Your task to perform on an android device: Search for Mexican restaurants on Maps Image 0: 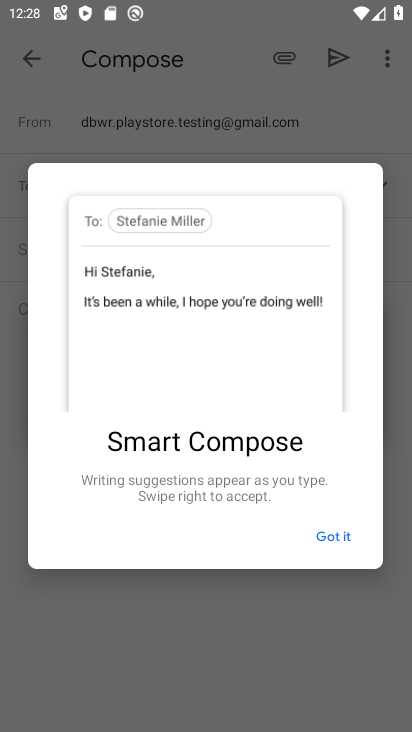
Step 0: press home button
Your task to perform on an android device: Search for Mexican restaurants on Maps Image 1: 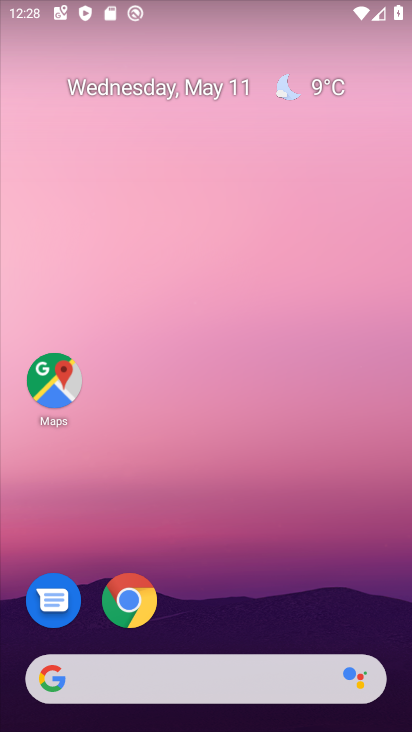
Step 1: click (65, 381)
Your task to perform on an android device: Search for Mexican restaurants on Maps Image 2: 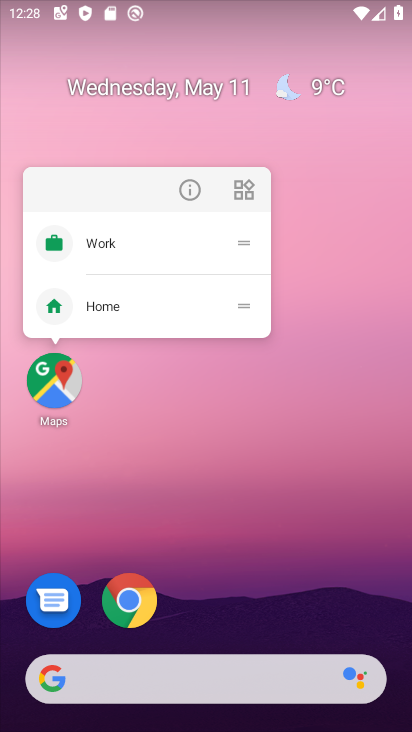
Step 2: click (62, 388)
Your task to perform on an android device: Search for Mexican restaurants on Maps Image 3: 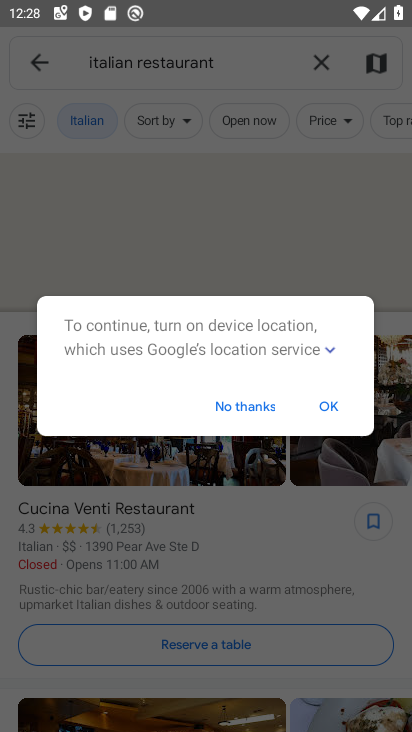
Step 3: click (329, 57)
Your task to perform on an android device: Search for Mexican restaurants on Maps Image 4: 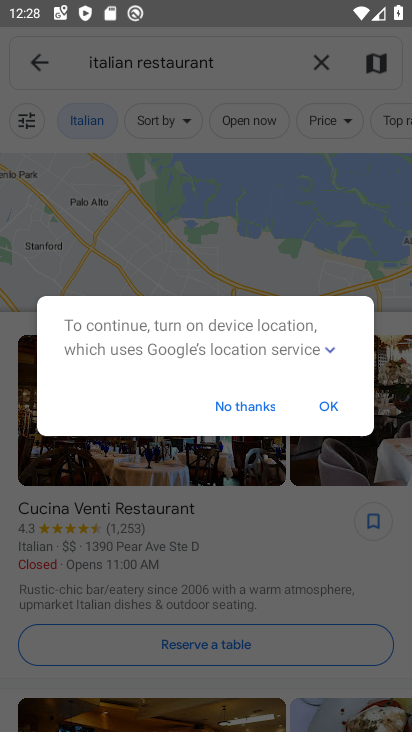
Step 4: click (323, 394)
Your task to perform on an android device: Search for Mexican restaurants on Maps Image 5: 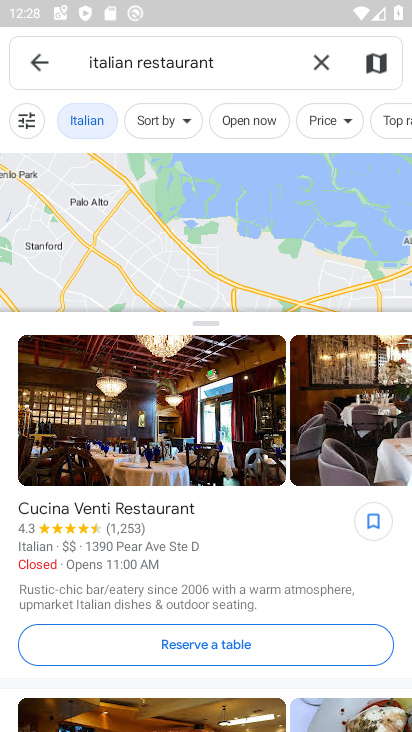
Step 5: click (325, 68)
Your task to perform on an android device: Search for Mexican restaurants on Maps Image 6: 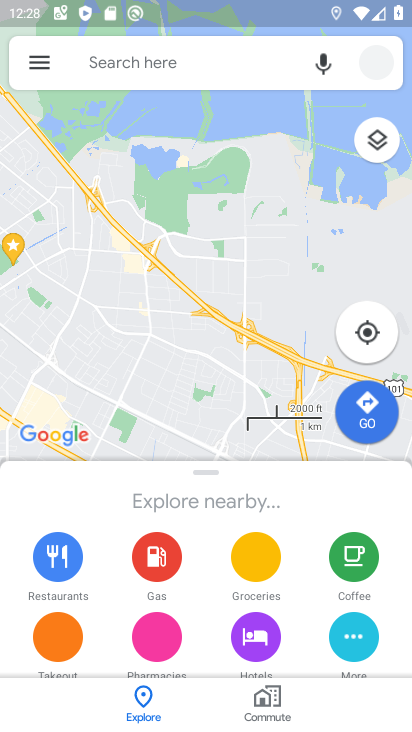
Step 6: click (169, 59)
Your task to perform on an android device: Search for Mexican restaurants on Maps Image 7: 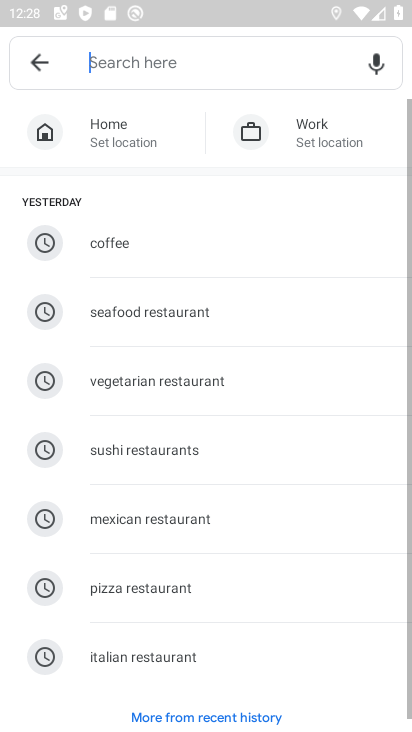
Step 7: click (209, 55)
Your task to perform on an android device: Search for Mexican restaurants on Maps Image 8: 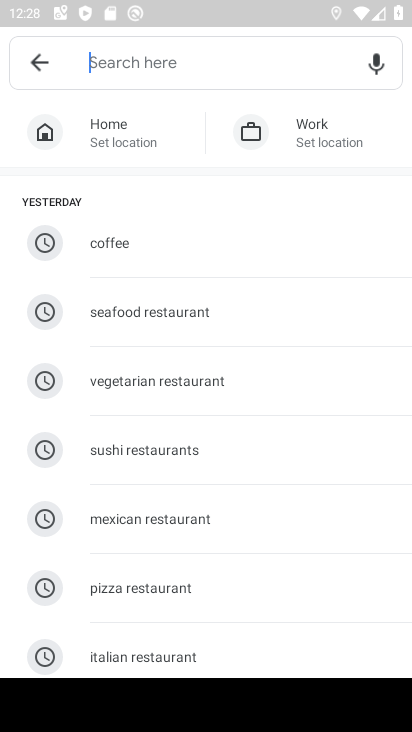
Step 8: click (158, 517)
Your task to perform on an android device: Search for Mexican restaurants on Maps Image 9: 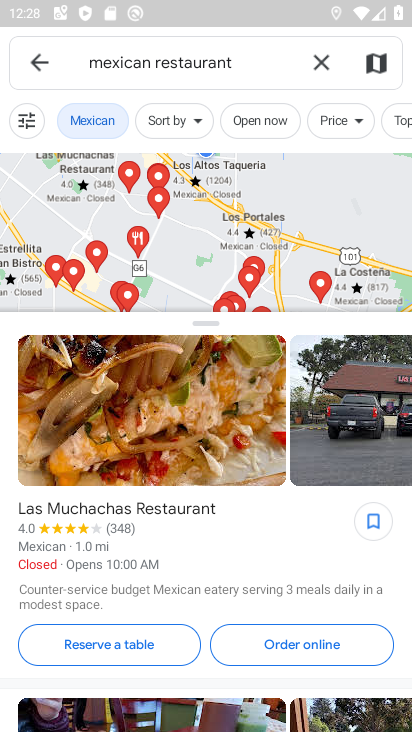
Step 9: task complete